Your task to perform on an android device: turn on sleep mode Image 0: 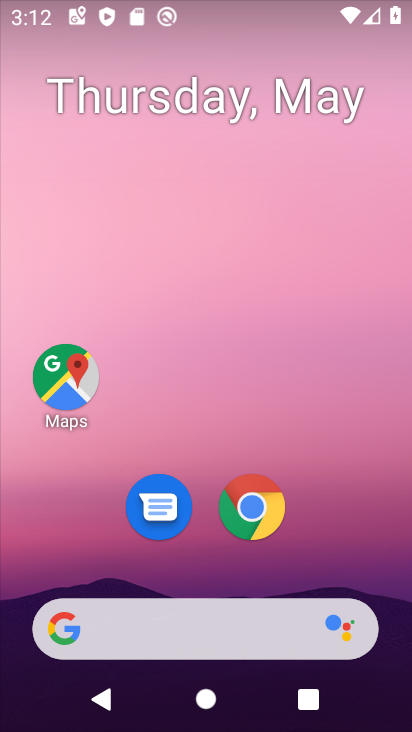
Step 0: drag from (315, 492) to (345, 78)
Your task to perform on an android device: turn on sleep mode Image 1: 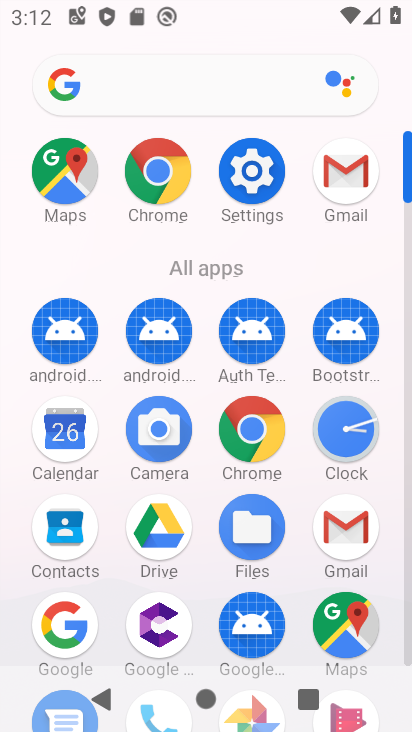
Step 1: click (257, 168)
Your task to perform on an android device: turn on sleep mode Image 2: 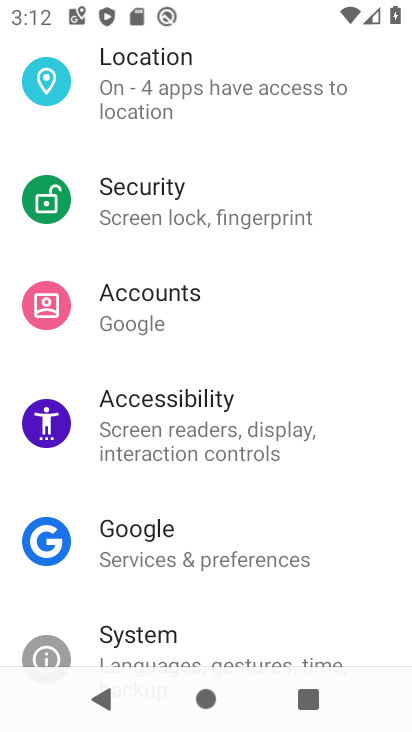
Step 2: drag from (297, 131) to (245, 551)
Your task to perform on an android device: turn on sleep mode Image 3: 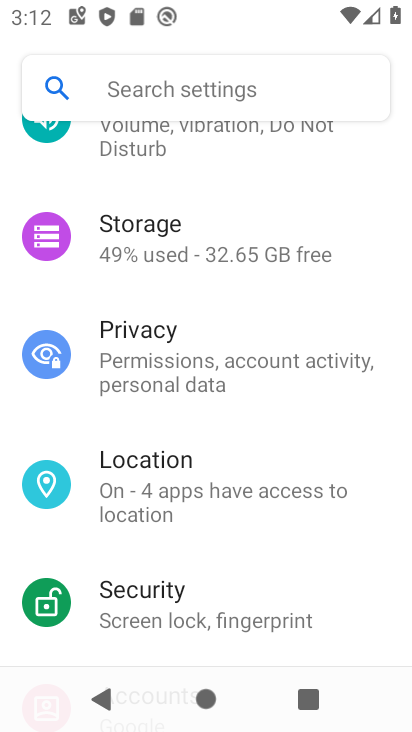
Step 3: drag from (259, 161) to (226, 566)
Your task to perform on an android device: turn on sleep mode Image 4: 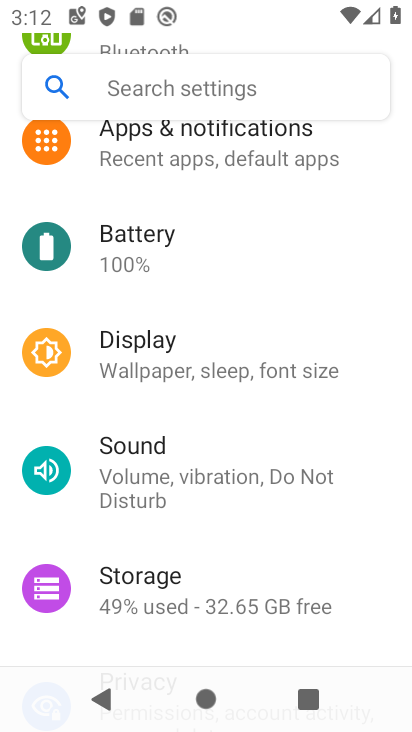
Step 4: click (270, 370)
Your task to perform on an android device: turn on sleep mode Image 5: 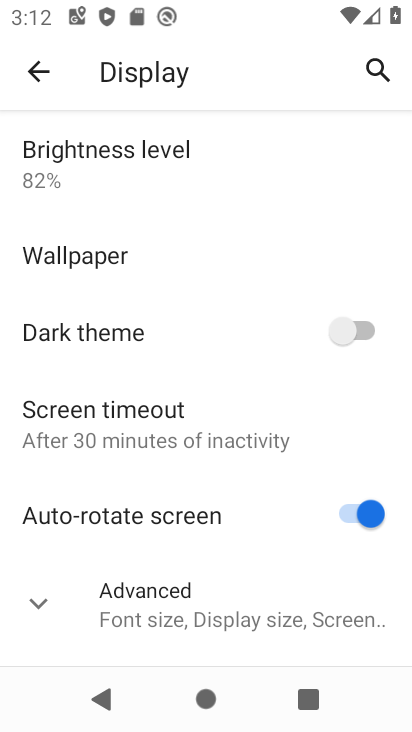
Step 5: task complete